Your task to perform on an android device: check google app version Image 0: 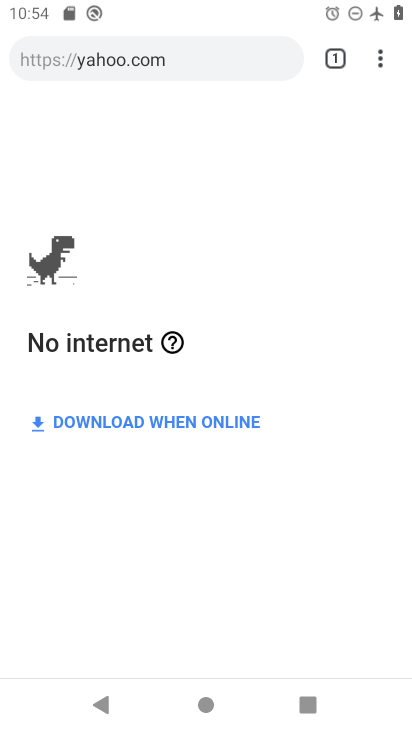
Step 0: press home button
Your task to perform on an android device: check google app version Image 1: 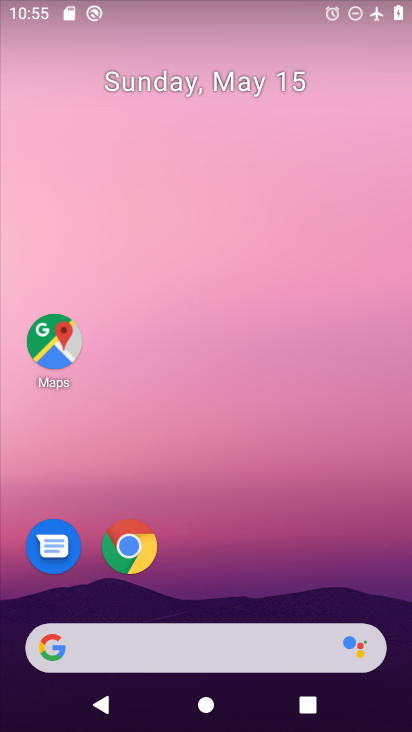
Step 1: drag from (274, 542) to (329, 61)
Your task to perform on an android device: check google app version Image 2: 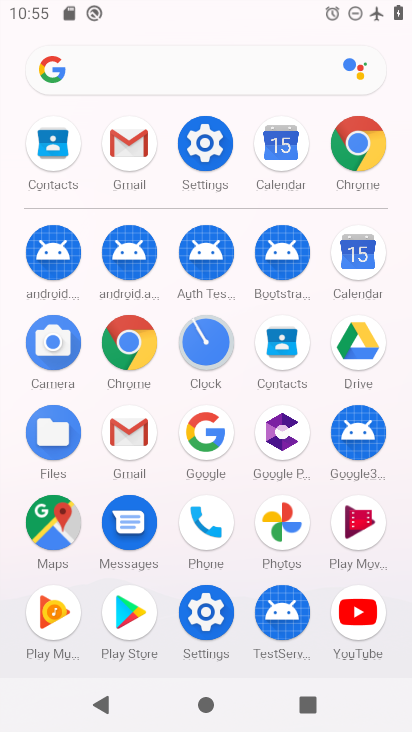
Step 2: click (209, 437)
Your task to perform on an android device: check google app version Image 3: 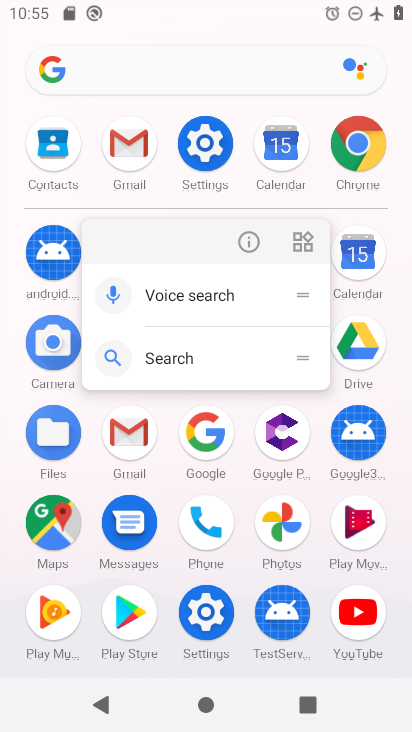
Step 3: click (254, 231)
Your task to perform on an android device: check google app version Image 4: 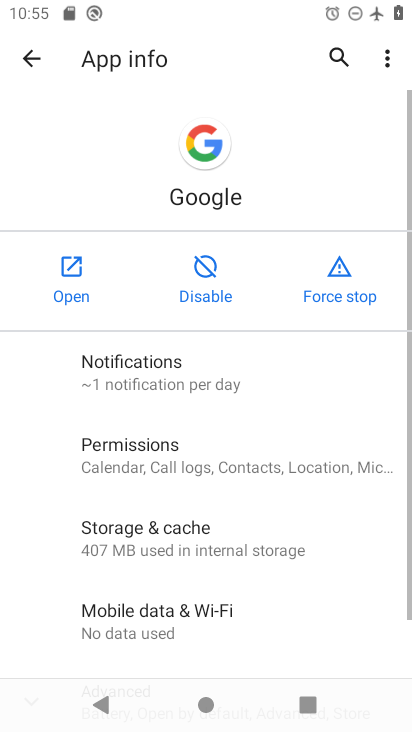
Step 4: drag from (262, 656) to (305, 97)
Your task to perform on an android device: check google app version Image 5: 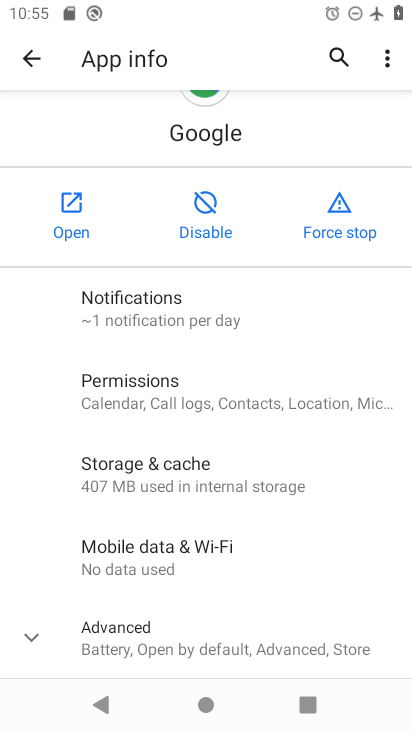
Step 5: click (167, 646)
Your task to perform on an android device: check google app version Image 6: 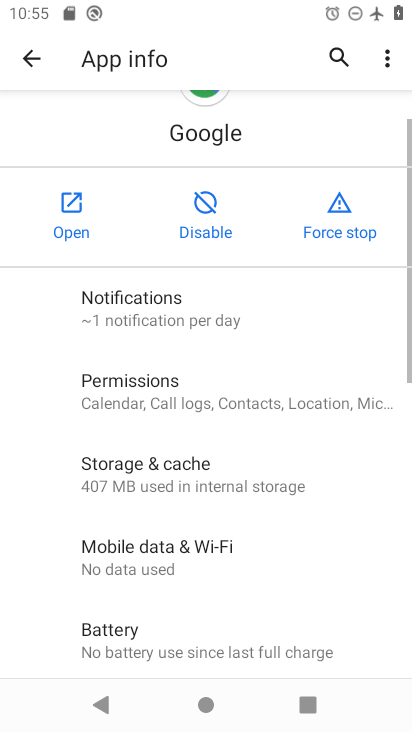
Step 6: task complete